Your task to perform on an android device: Empty the shopping cart on target.com. Add logitech g pro to the cart on target.com, then select checkout. Image 0: 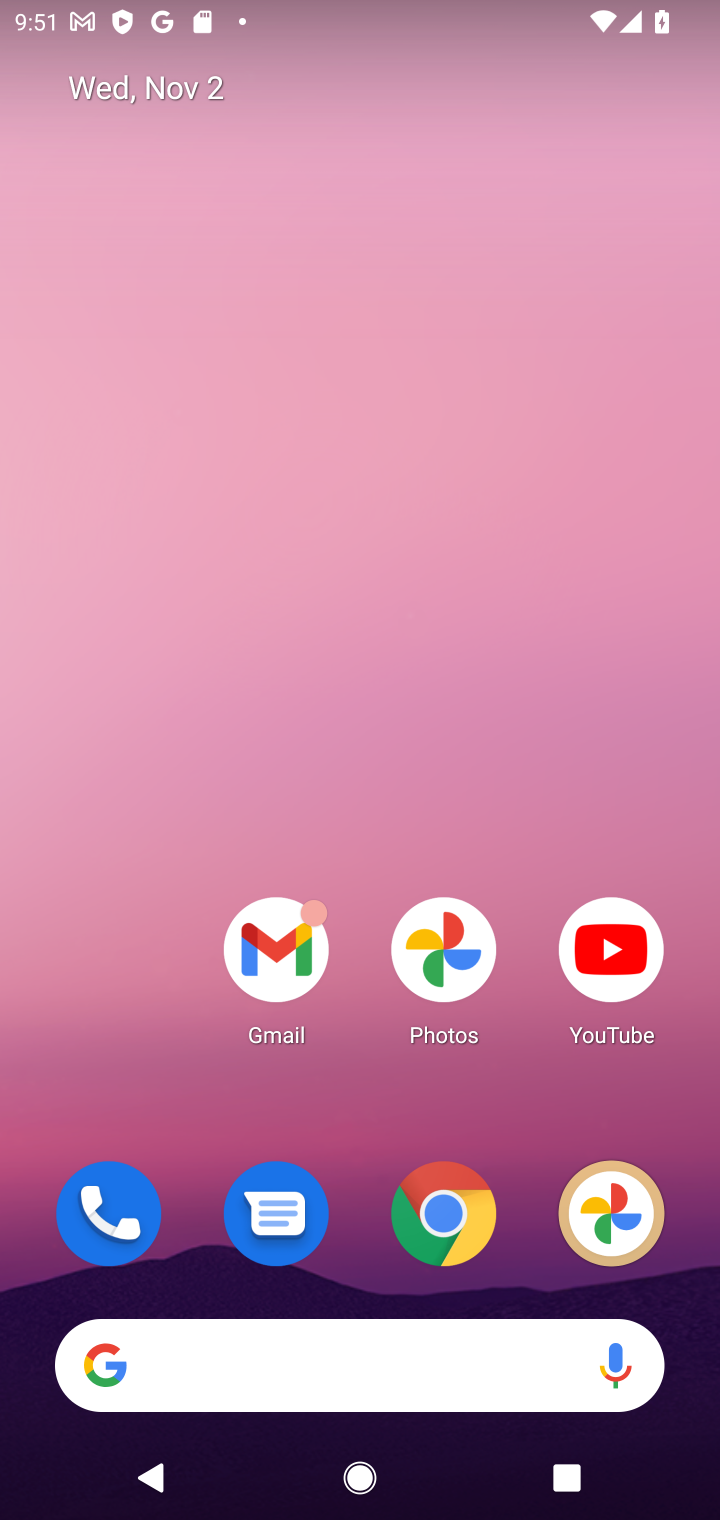
Step 0: click (460, 1214)
Your task to perform on an android device: Empty the shopping cart on target.com. Add logitech g pro to the cart on target.com, then select checkout. Image 1: 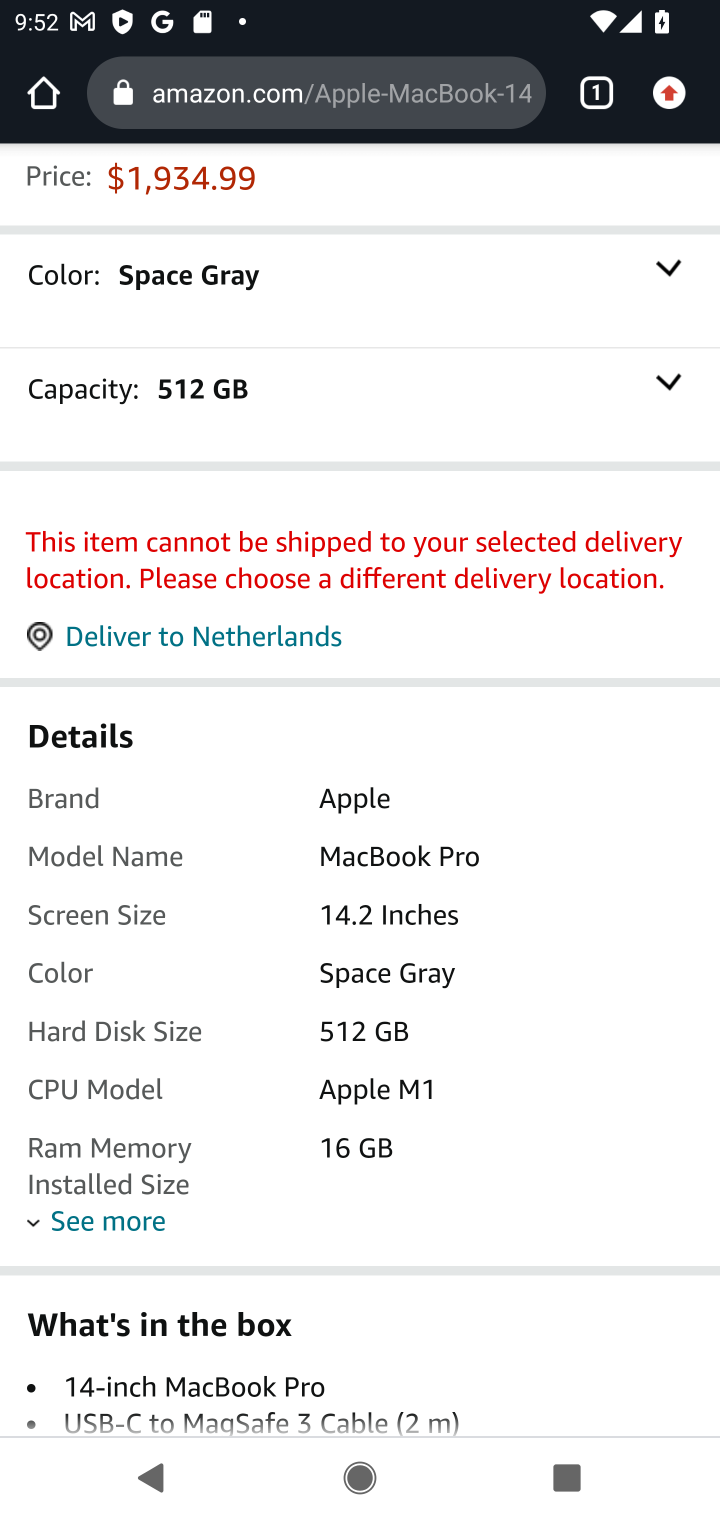
Step 1: click (261, 76)
Your task to perform on an android device: Empty the shopping cart on target.com. Add logitech g pro to the cart on target.com, then select checkout. Image 2: 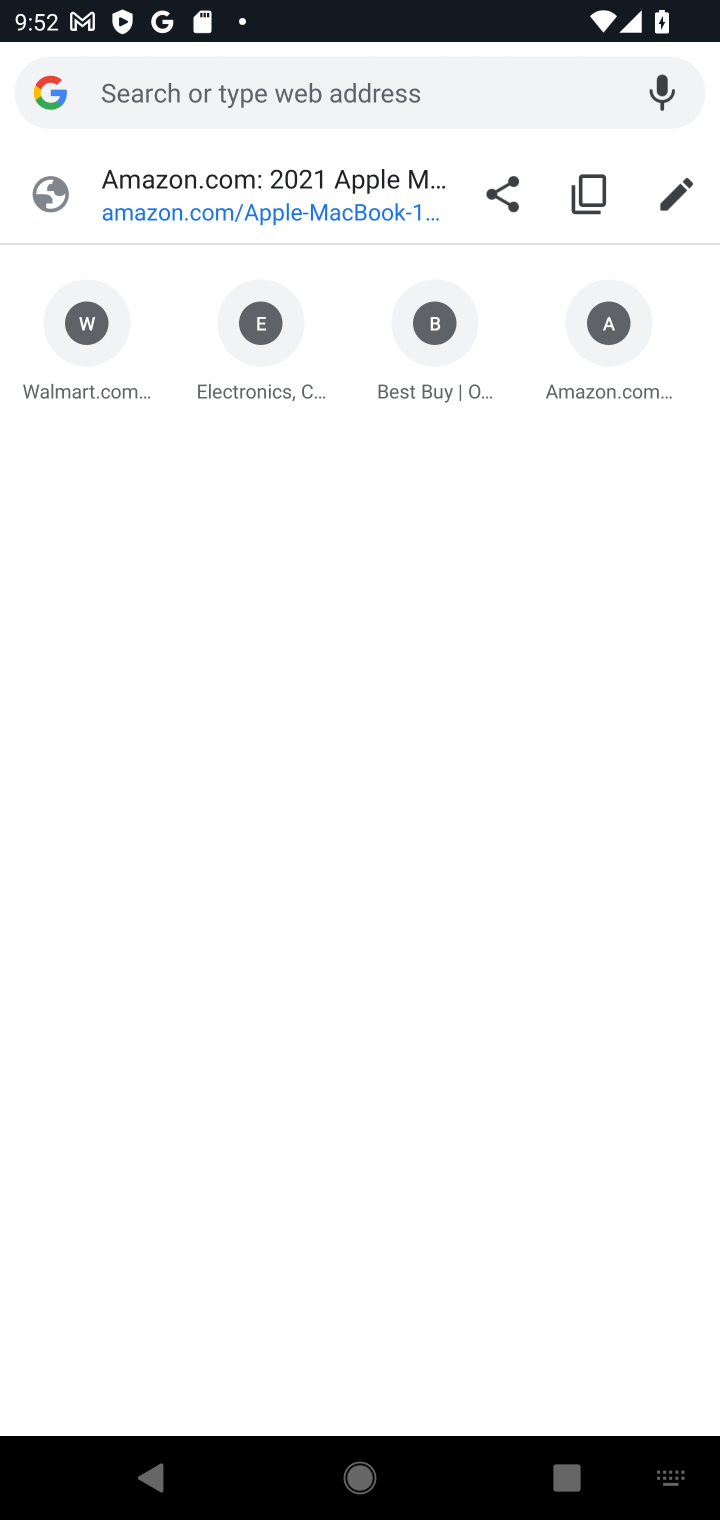
Step 2: type "target.com"
Your task to perform on an android device: Empty the shopping cart on target.com. Add logitech g pro to the cart on target.com, then select checkout. Image 3: 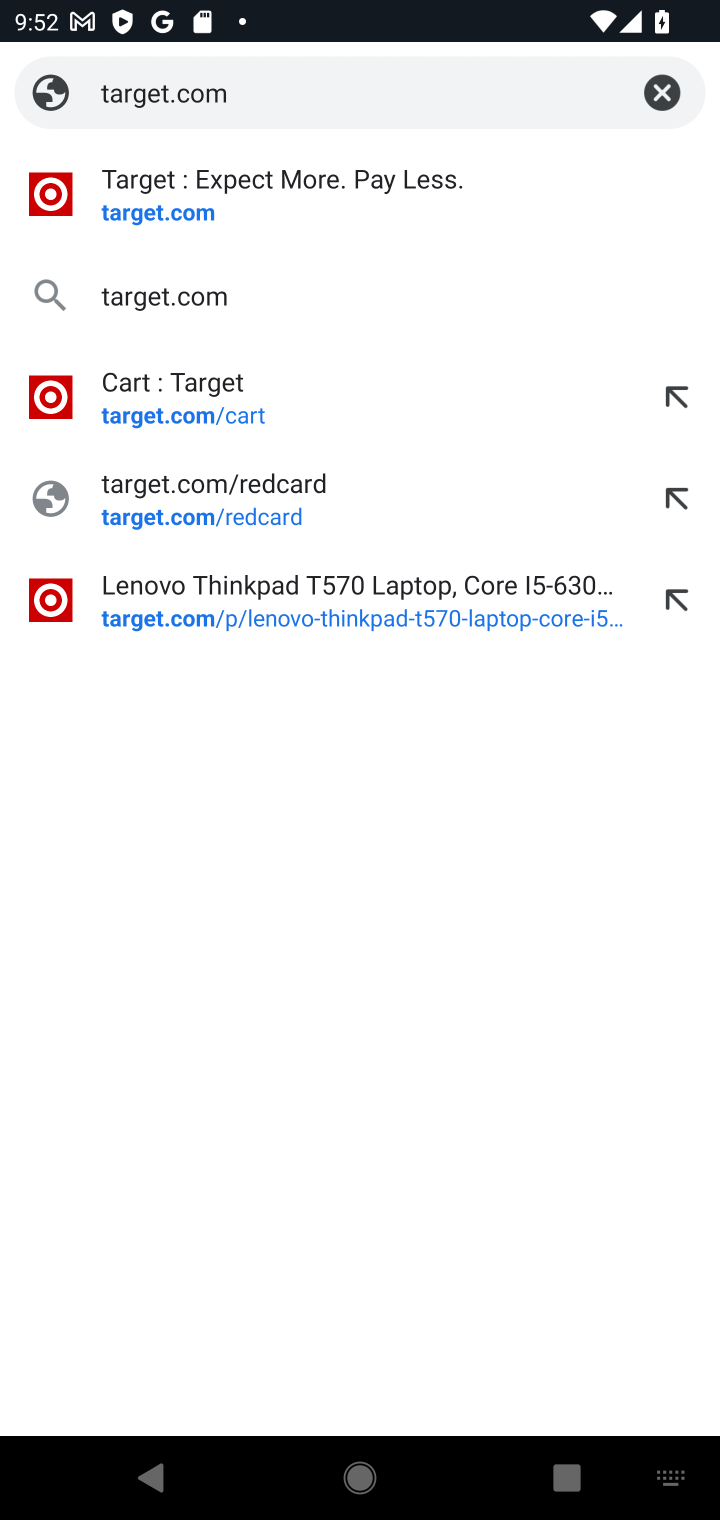
Step 3: click (420, 187)
Your task to perform on an android device: Empty the shopping cart on target.com. Add logitech g pro to the cart on target.com, then select checkout. Image 4: 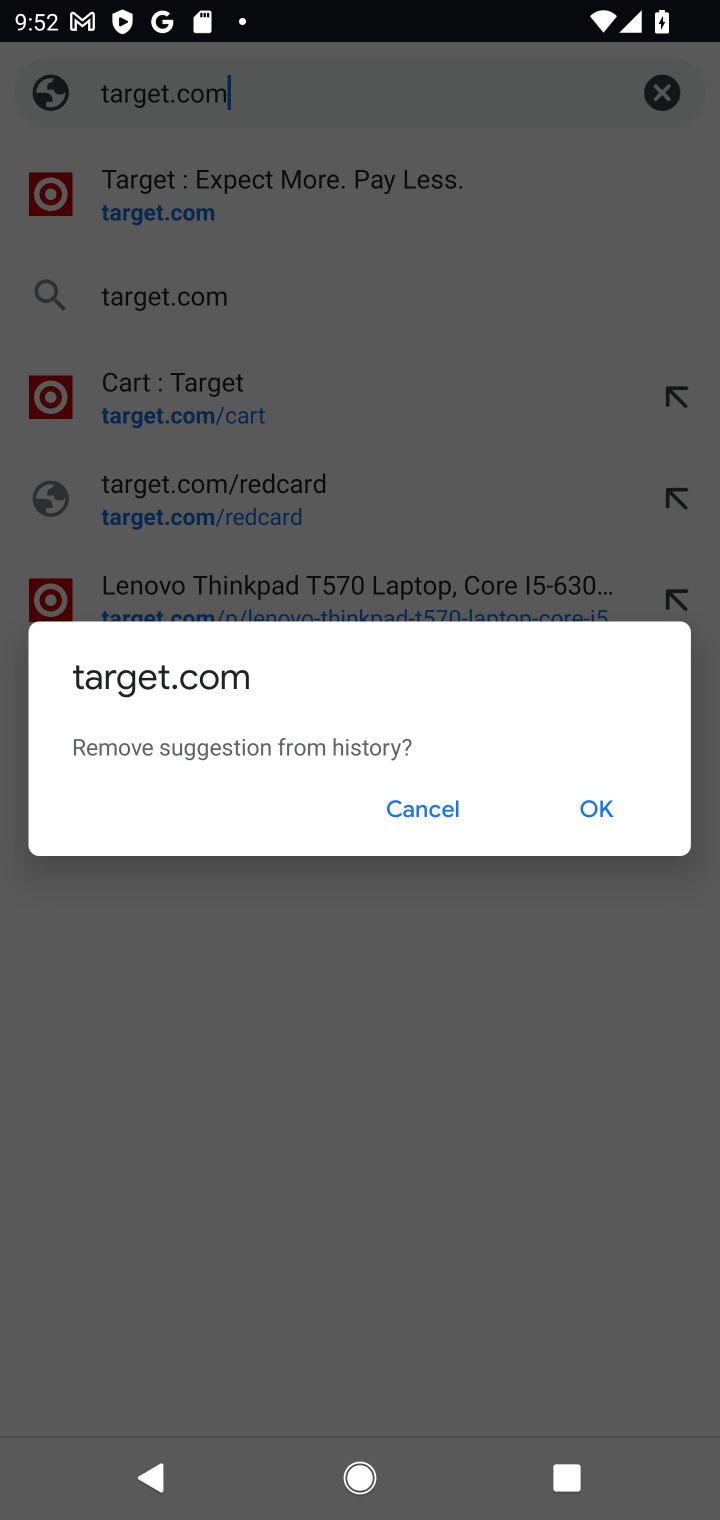
Step 4: click (440, 805)
Your task to perform on an android device: Empty the shopping cart on target.com. Add logitech g pro to the cart on target.com, then select checkout. Image 5: 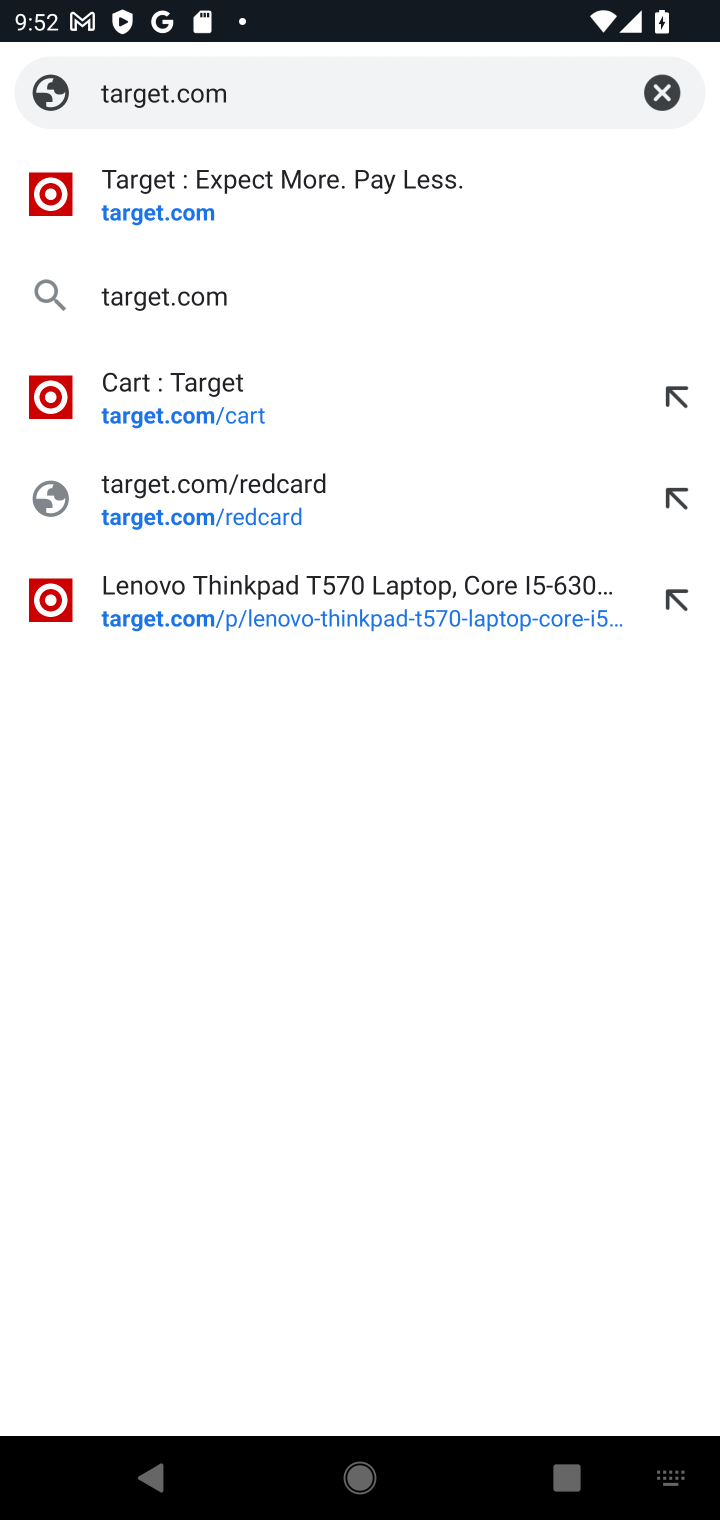
Step 5: click (243, 207)
Your task to perform on an android device: Empty the shopping cart on target.com. Add logitech g pro to the cart on target.com, then select checkout. Image 6: 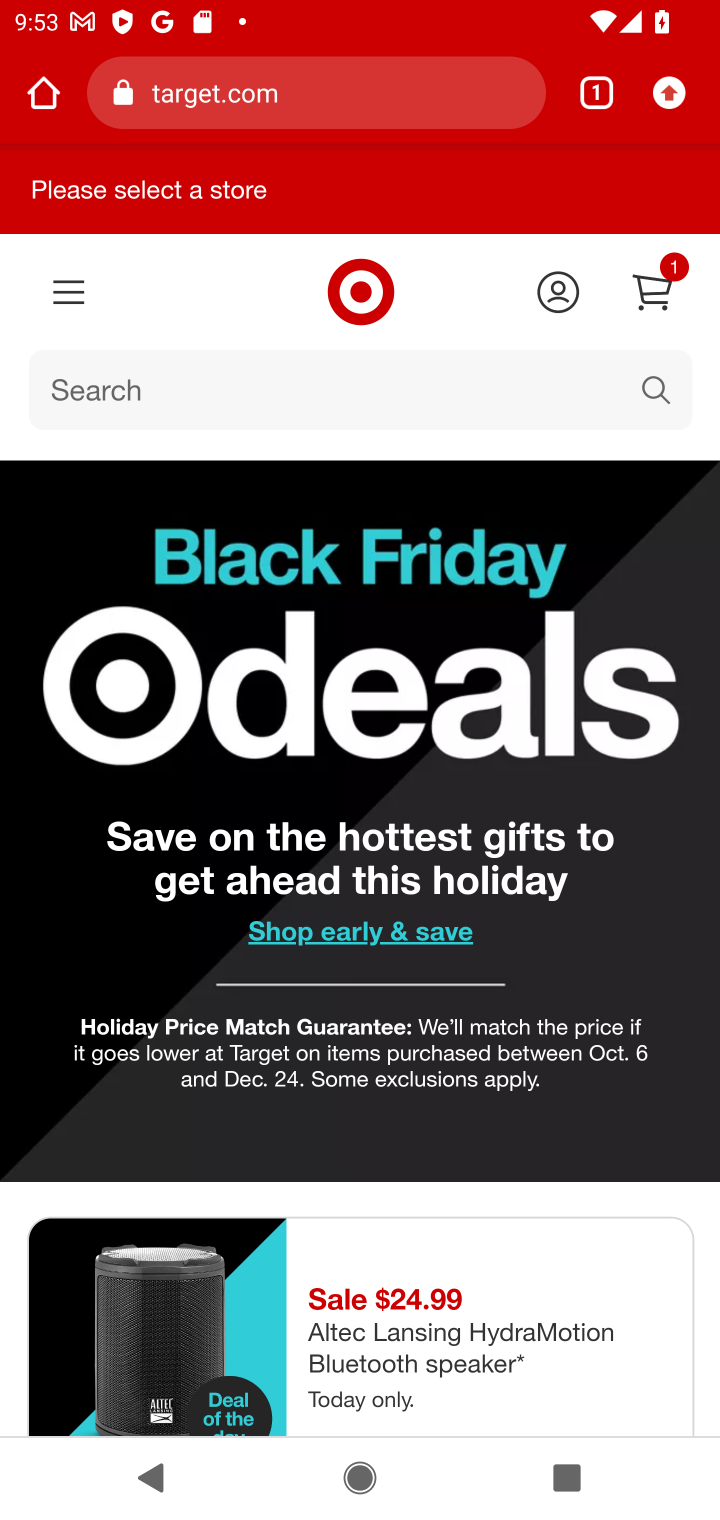
Step 6: click (417, 406)
Your task to perform on an android device: Empty the shopping cart on target.com. Add logitech g pro to the cart on target.com, then select checkout. Image 7: 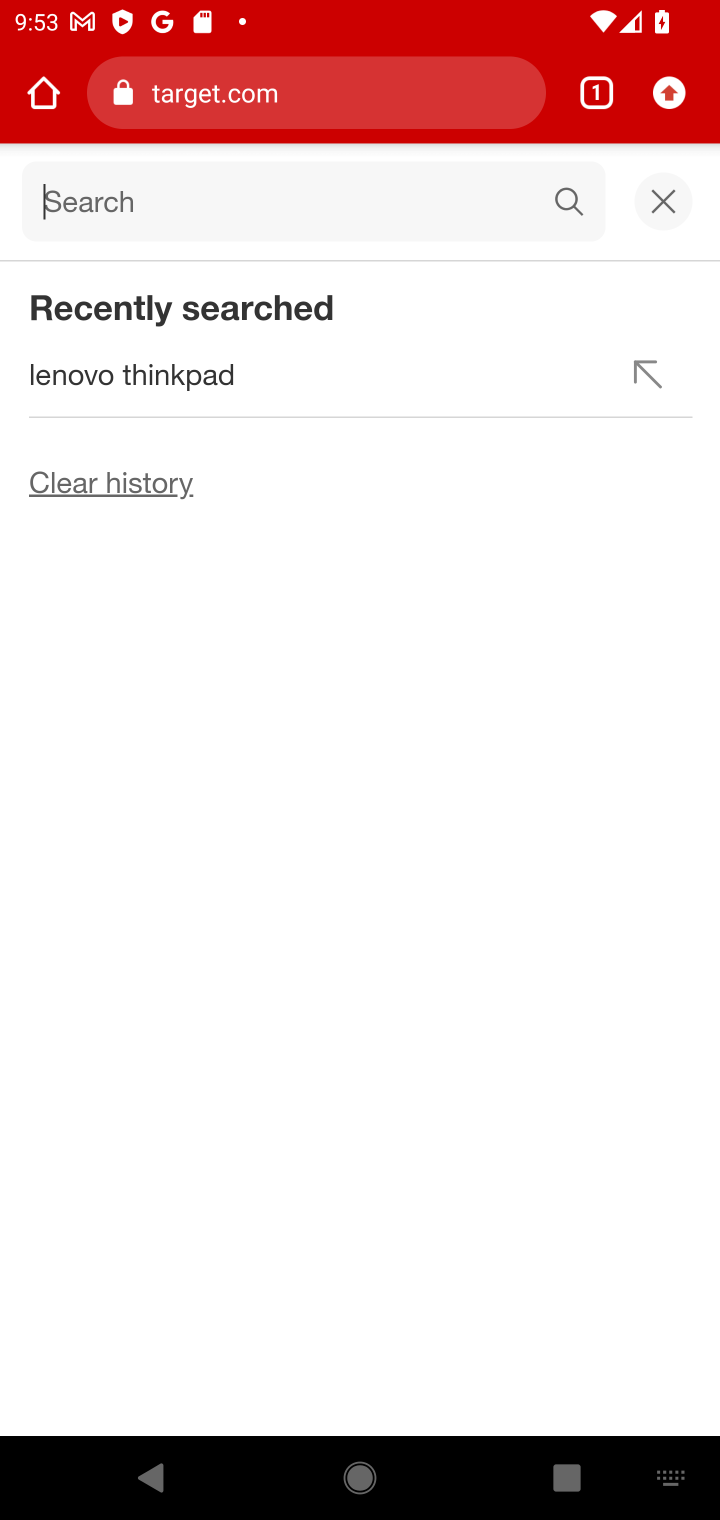
Step 7: type "logitech g pro "
Your task to perform on an android device: Empty the shopping cart on target.com. Add logitech g pro to the cart on target.com, then select checkout. Image 8: 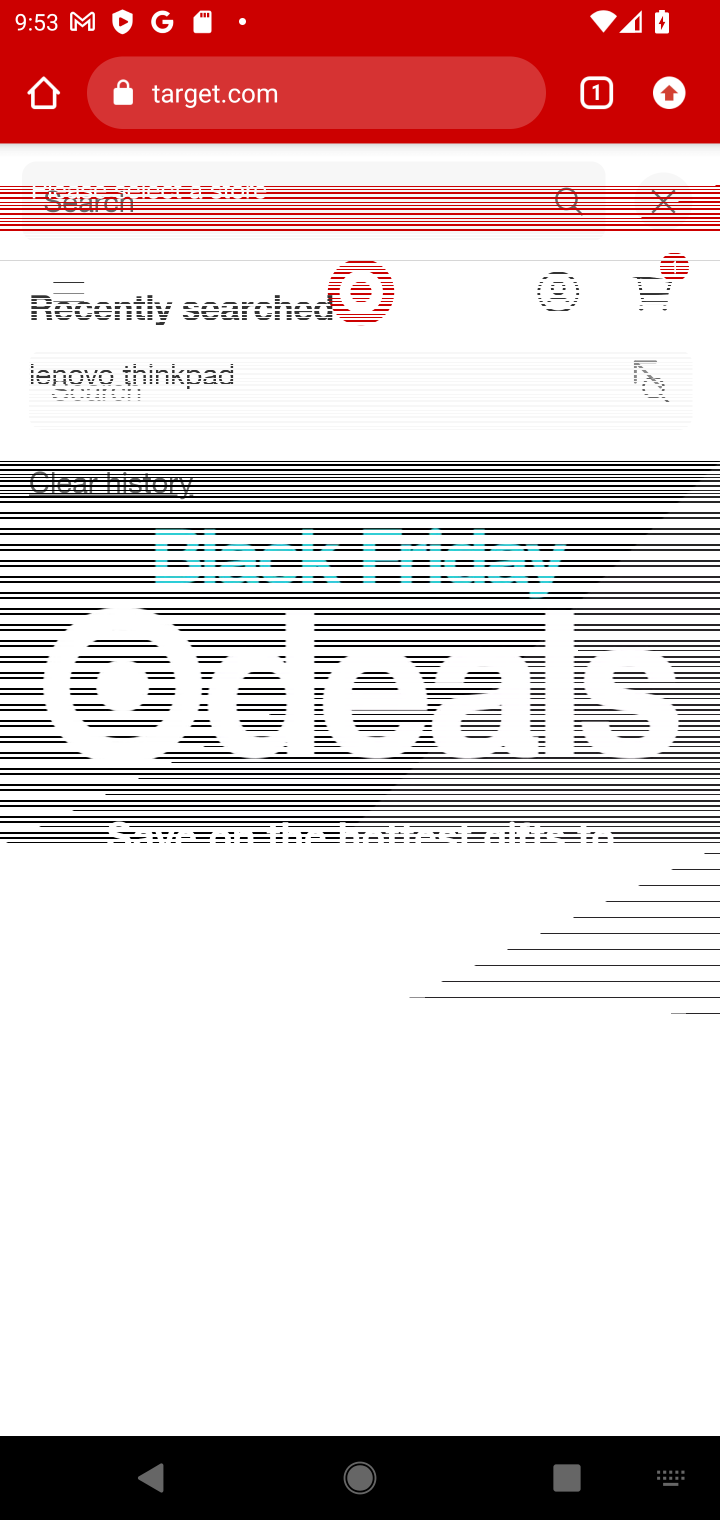
Step 8: type ""
Your task to perform on an android device: Empty the shopping cart on target.com. Add logitech g pro to the cart on target.com, then select checkout. Image 9: 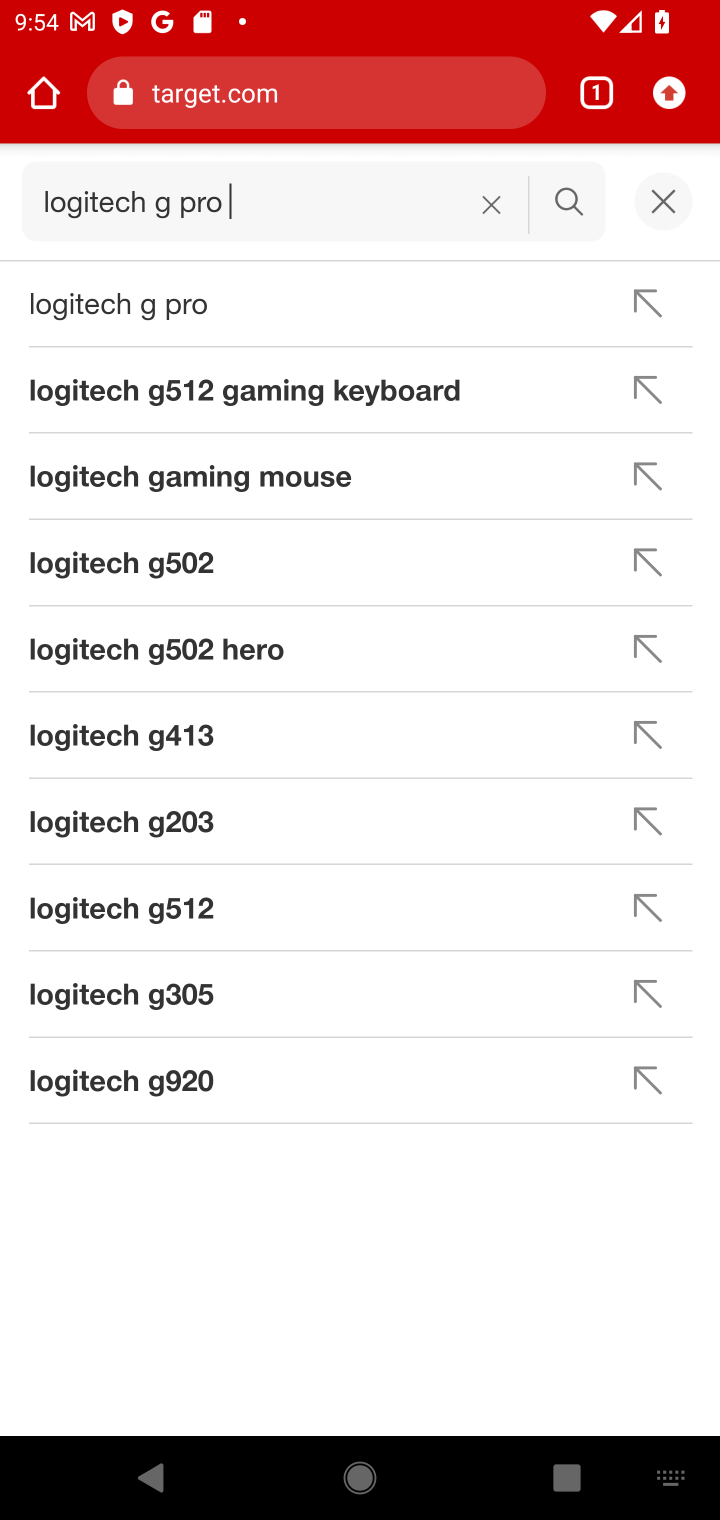
Step 9: click (163, 299)
Your task to perform on an android device: Empty the shopping cart on target.com. Add logitech g pro to the cart on target.com, then select checkout. Image 10: 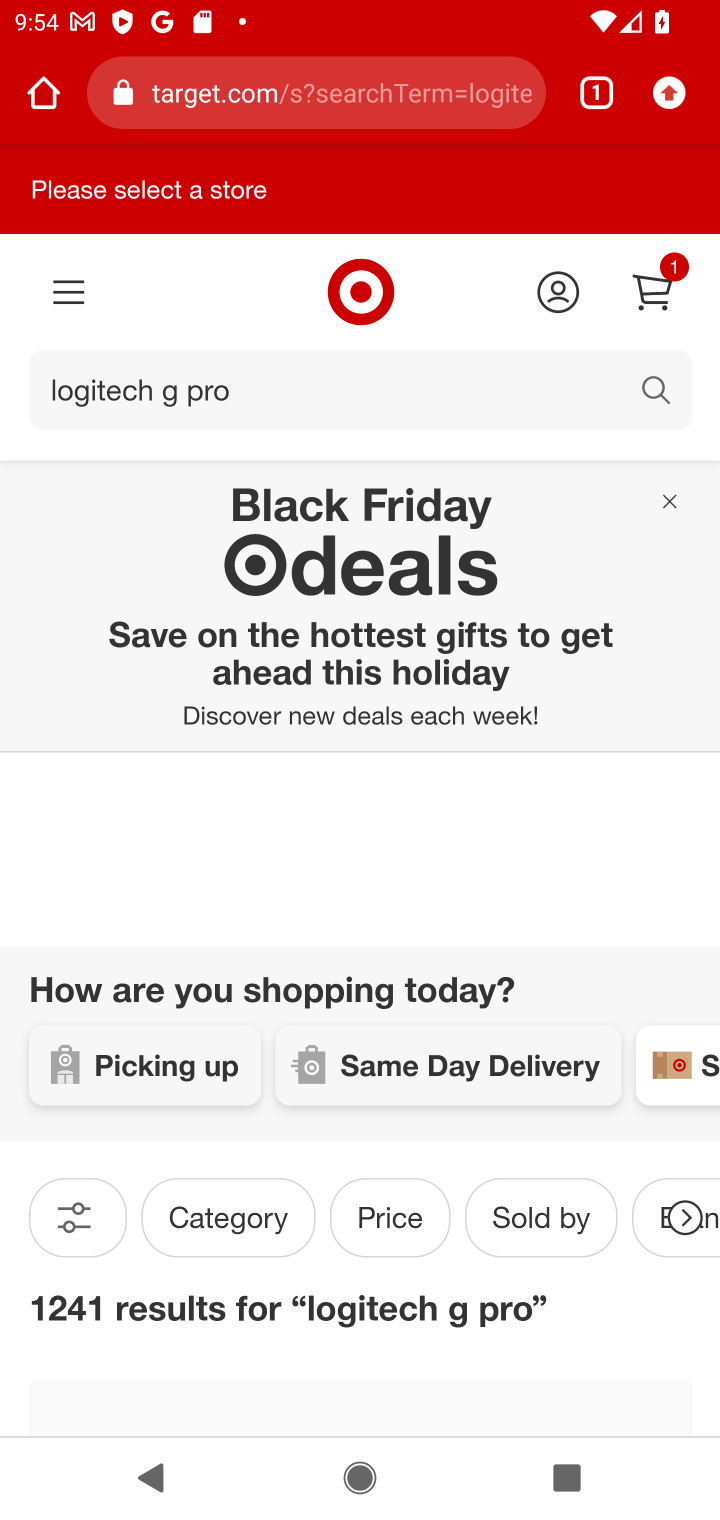
Step 10: drag from (281, 615) to (253, 479)
Your task to perform on an android device: Empty the shopping cart on target.com. Add logitech g pro to the cart on target.com, then select checkout. Image 11: 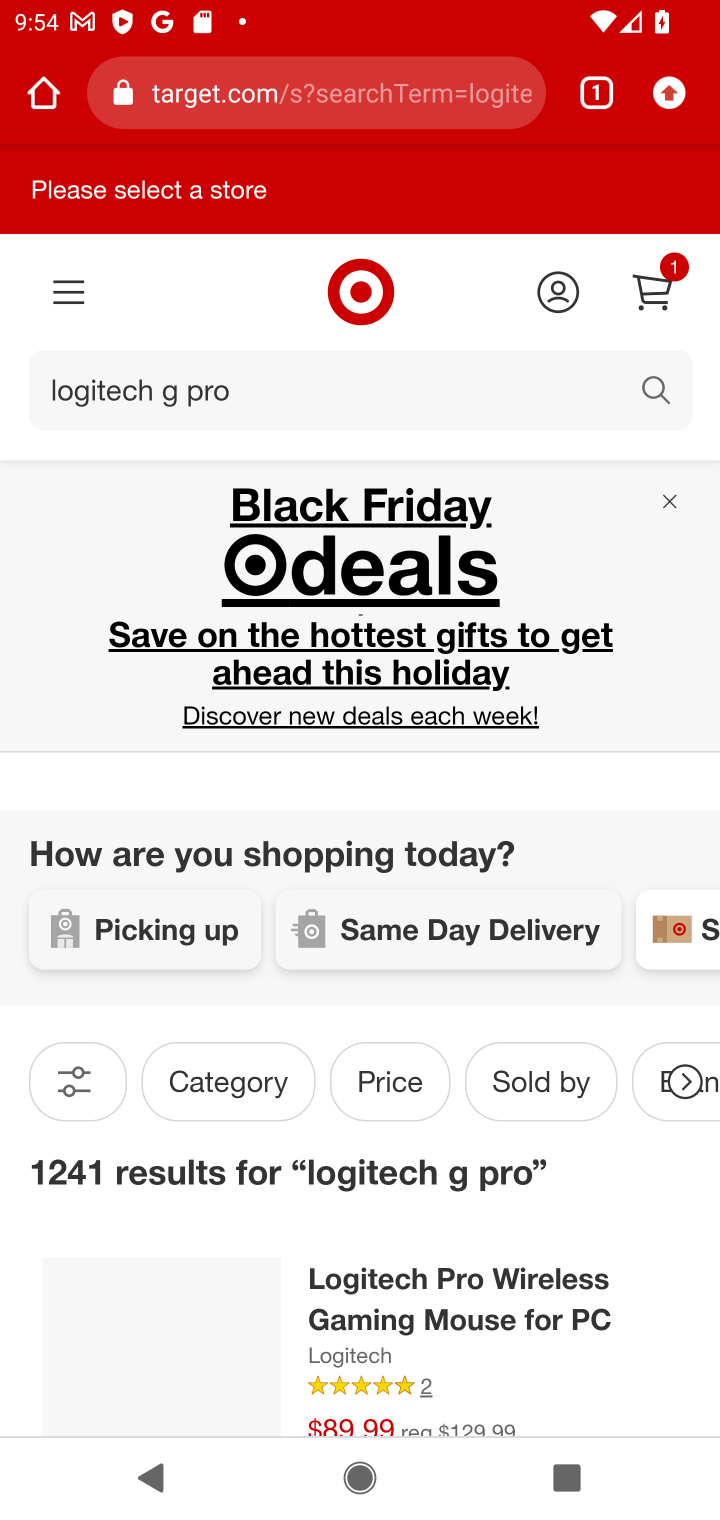
Step 11: drag from (359, 681) to (341, 531)
Your task to perform on an android device: Empty the shopping cart on target.com. Add logitech g pro to the cart on target.com, then select checkout. Image 12: 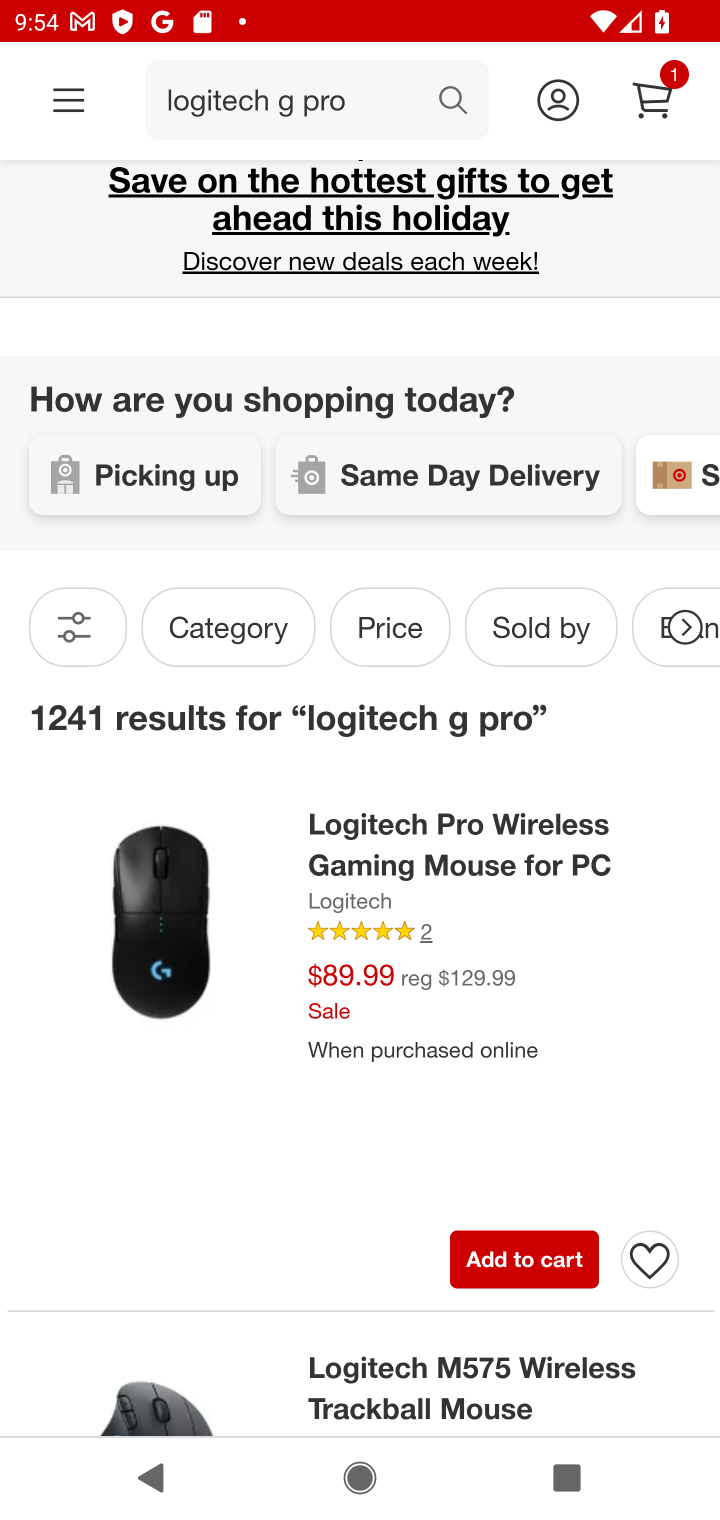
Step 12: click (348, 870)
Your task to perform on an android device: Empty the shopping cart on target.com. Add logitech g pro to the cart on target.com, then select checkout. Image 13: 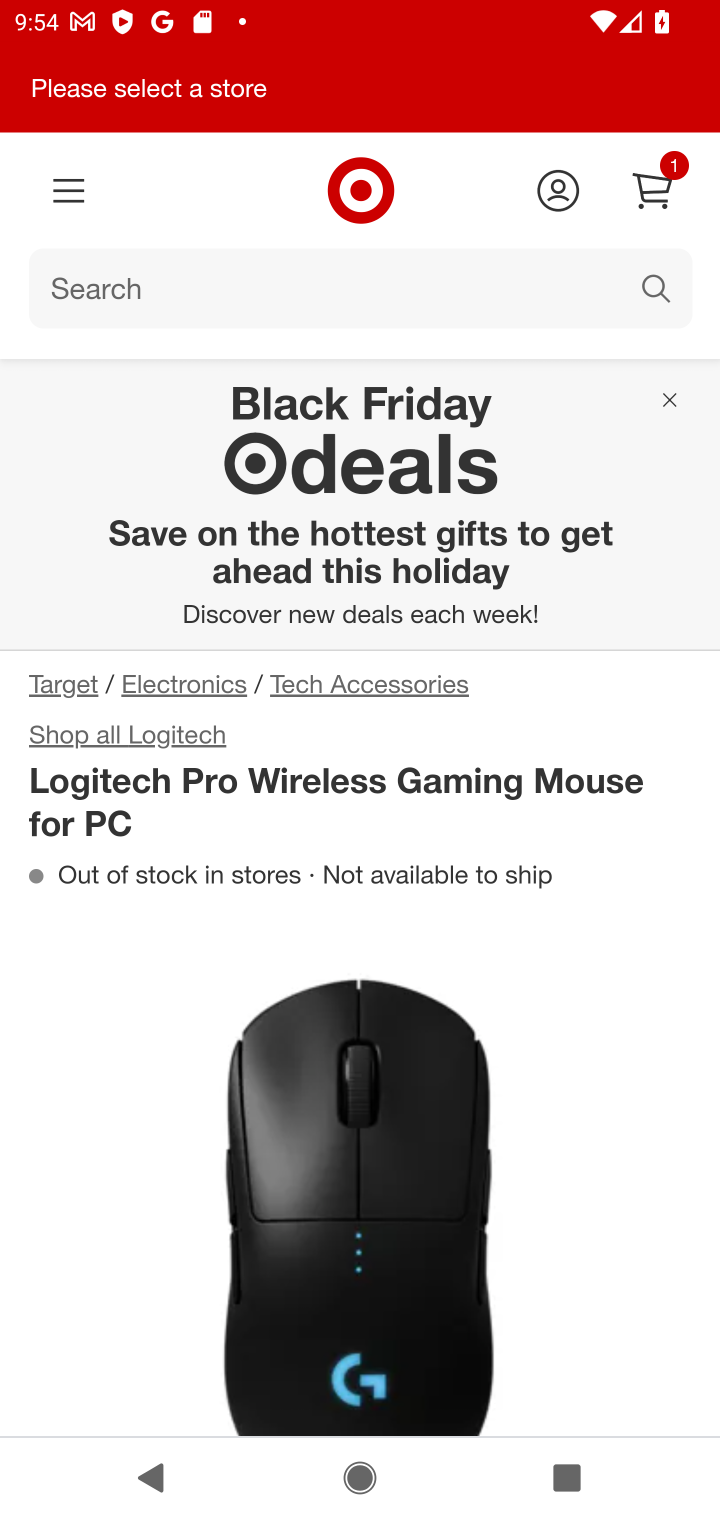
Step 13: task complete